Your task to perform on an android device: turn off data saver in the chrome app Image 0: 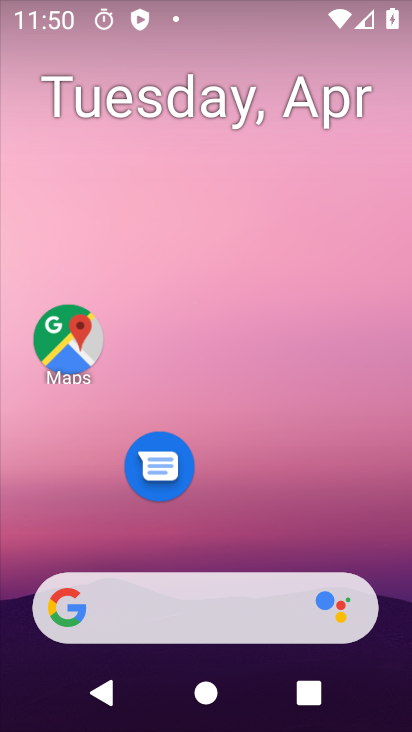
Step 0: drag from (323, 549) to (319, 109)
Your task to perform on an android device: turn off data saver in the chrome app Image 1: 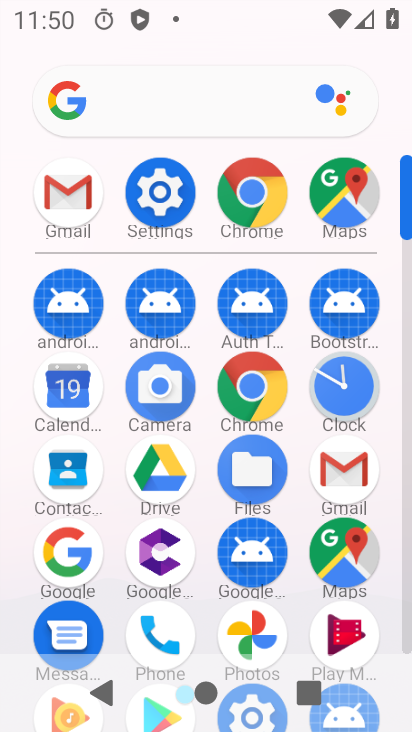
Step 1: click (261, 198)
Your task to perform on an android device: turn off data saver in the chrome app Image 2: 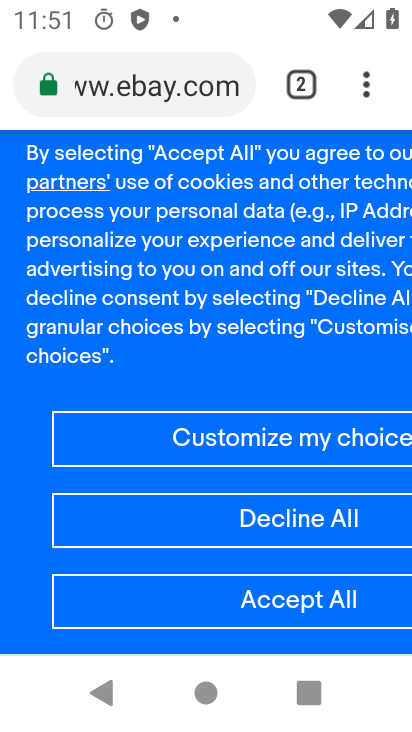
Step 2: click (361, 95)
Your task to perform on an android device: turn off data saver in the chrome app Image 3: 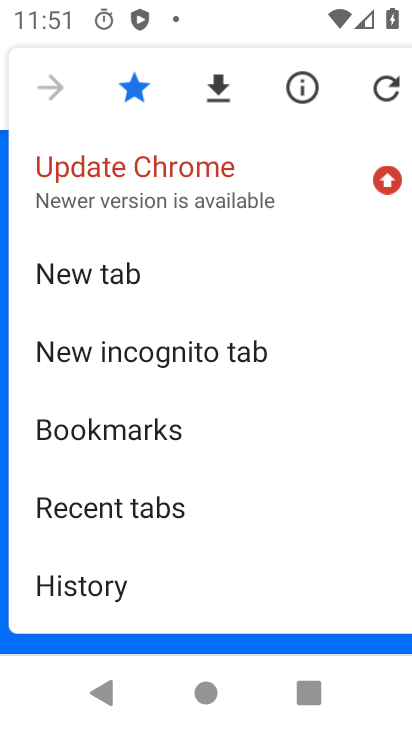
Step 3: drag from (188, 583) to (169, 270)
Your task to perform on an android device: turn off data saver in the chrome app Image 4: 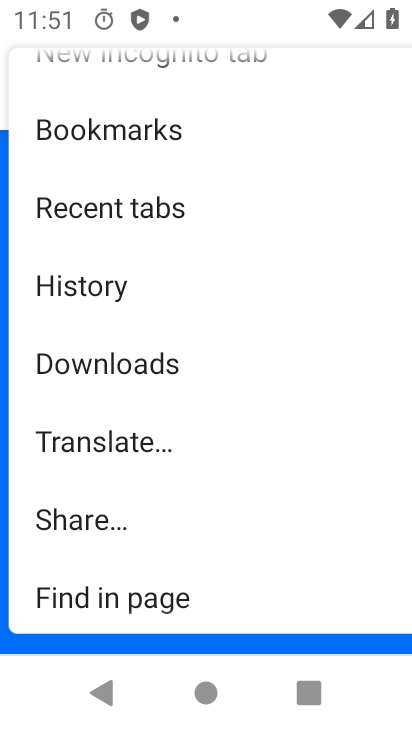
Step 4: drag from (169, 537) to (216, 125)
Your task to perform on an android device: turn off data saver in the chrome app Image 5: 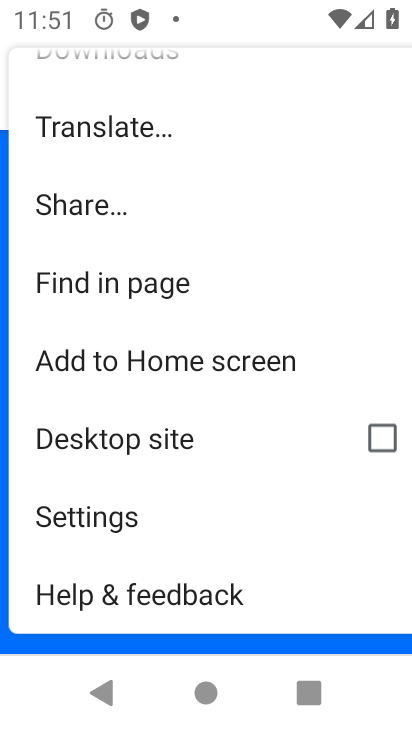
Step 5: click (162, 498)
Your task to perform on an android device: turn off data saver in the chrome app Image 6: 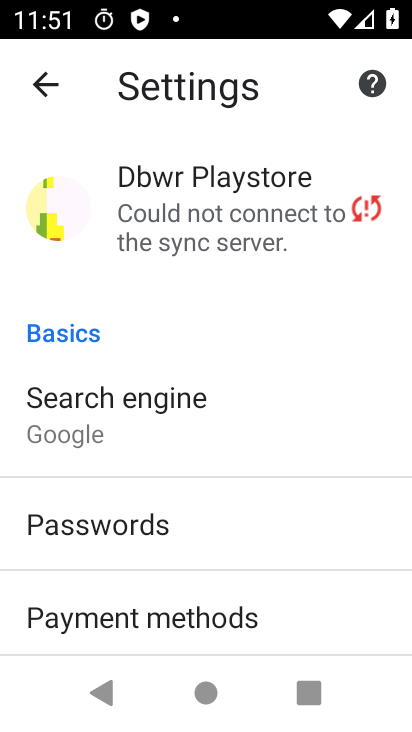
Step 6: drag from (125, 616) to (141, 265)
Your task to perform on an android device: turn off data saver in the chrome app Image 7: 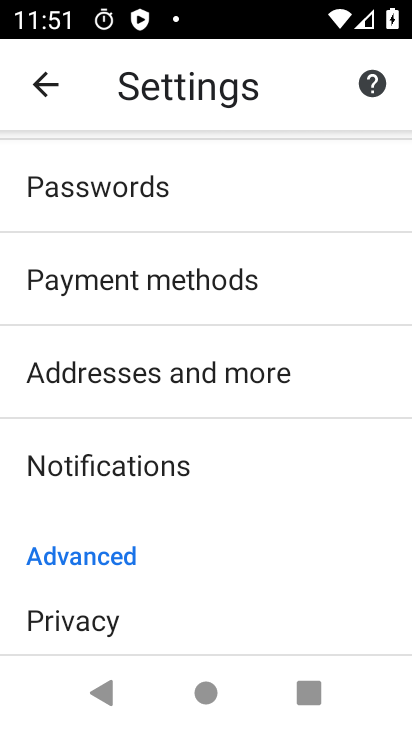
Step 7: drag from (247, 556) to (317, 221)
Your task to perform on an android device: turn off data saver in the chrome app Image 8: 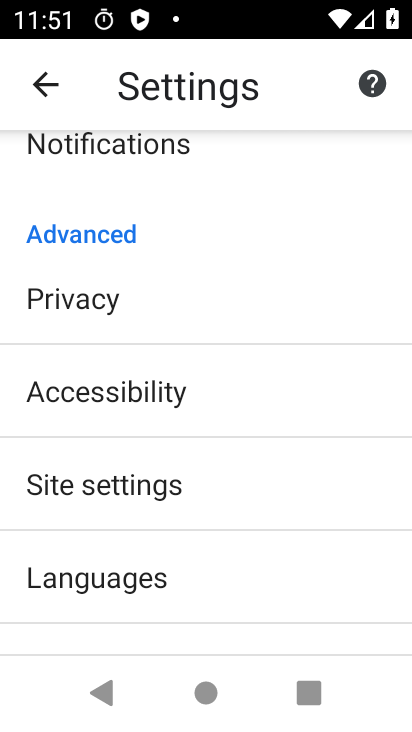
Step 8: drag from (207, 584) to (235, 308)
Your task to perform on an android device: turn off data saver in the chrome app Image 9: 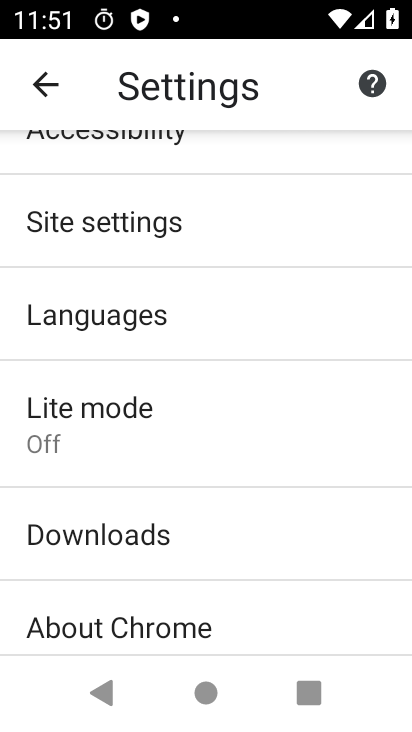
Step 9: click (182, 453)
Your task to perform on an android device: turn off data saver in the chrome app Image 10: 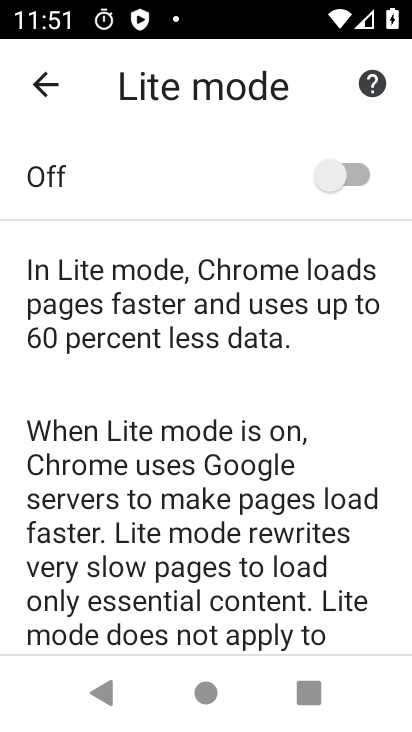
Step 10: task complete